Your task to perform on an android device: Go to display settings Image 0: 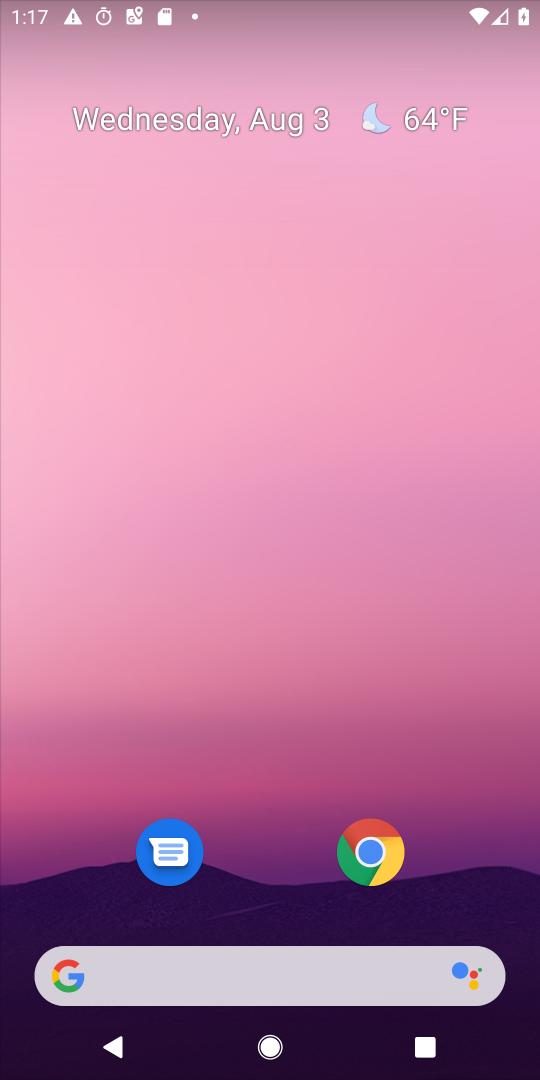
Step 0: drag from (503, 931) to (315, 67)
Your task to perform on an android device: Go to display settings Image 1: 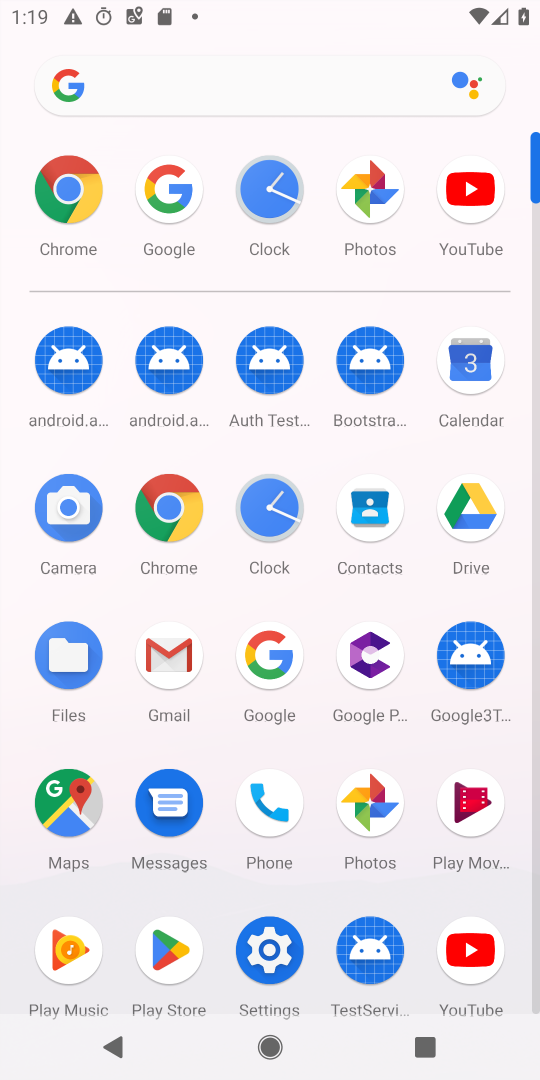
Step 1: click (278, 953)
Your task to perform on an android device: Go to display settings Image 2: 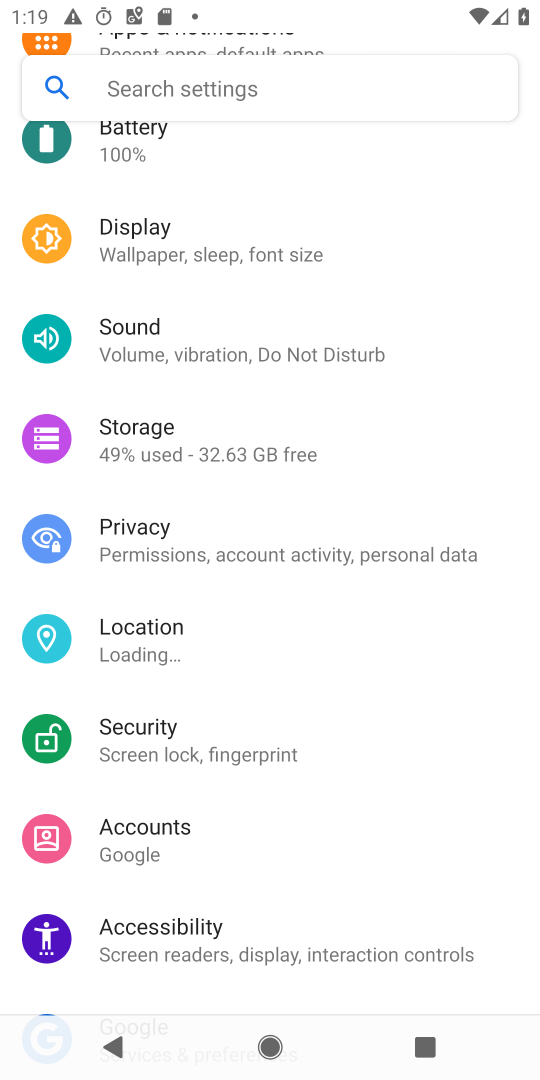
Step 2: click (125, 273)
Your task to perform on an android device: Go to display settings Image 3: 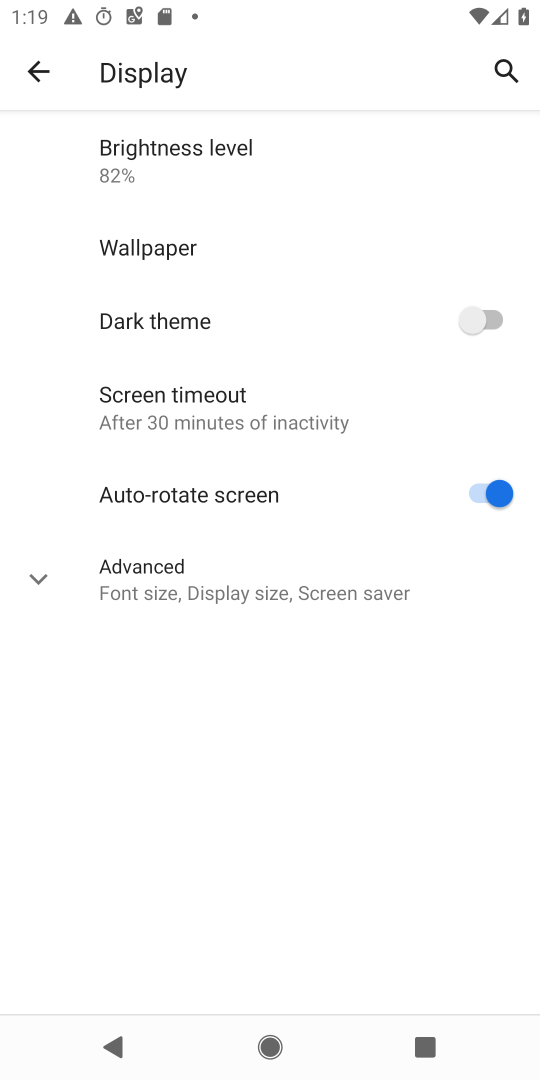
Step 3: task complete